Your task to perform on an android device: uninstall "Chime – Mobile Banking" Image 0: 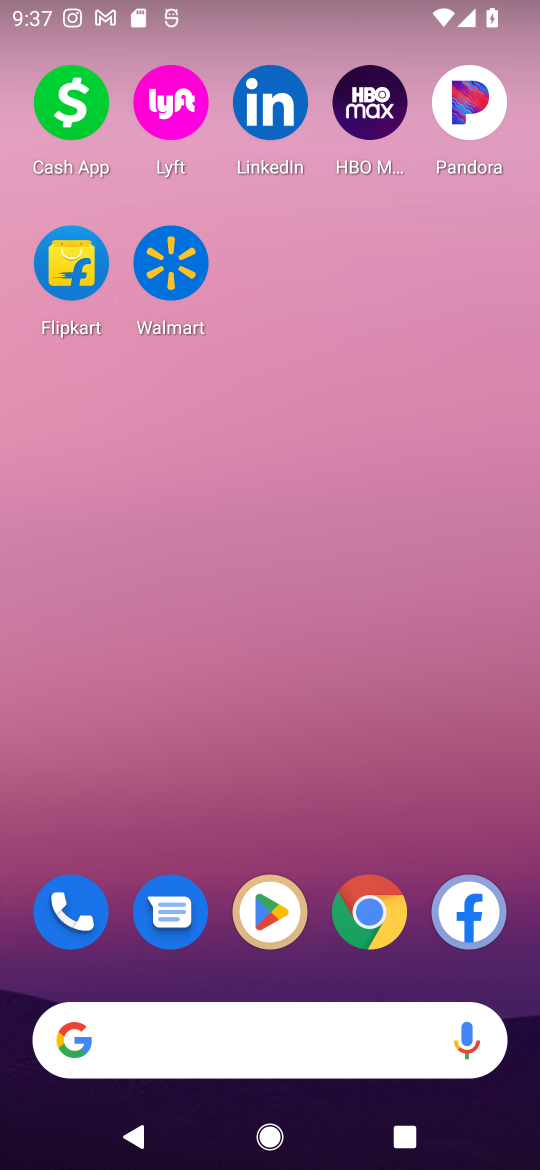
Step 0: click (273, 923)
Your task to perform on an android device: uninstall "Chime – Mobile Banking" Image 1: 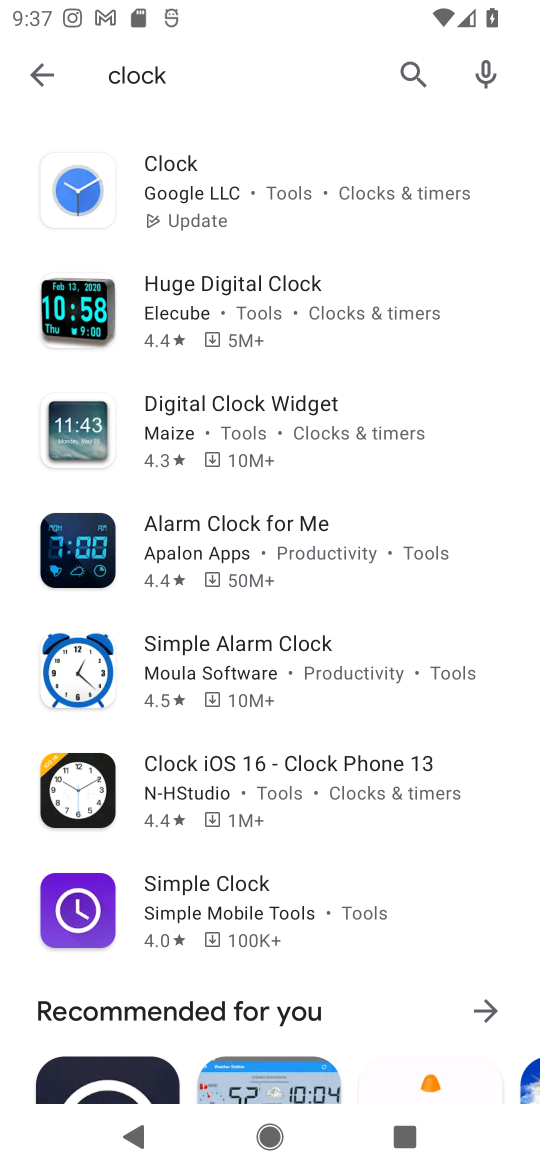
Step 1: click (410, 67)
Your task to perform on an android device: uninstall "Chime – Mobile Banking" Image 2: 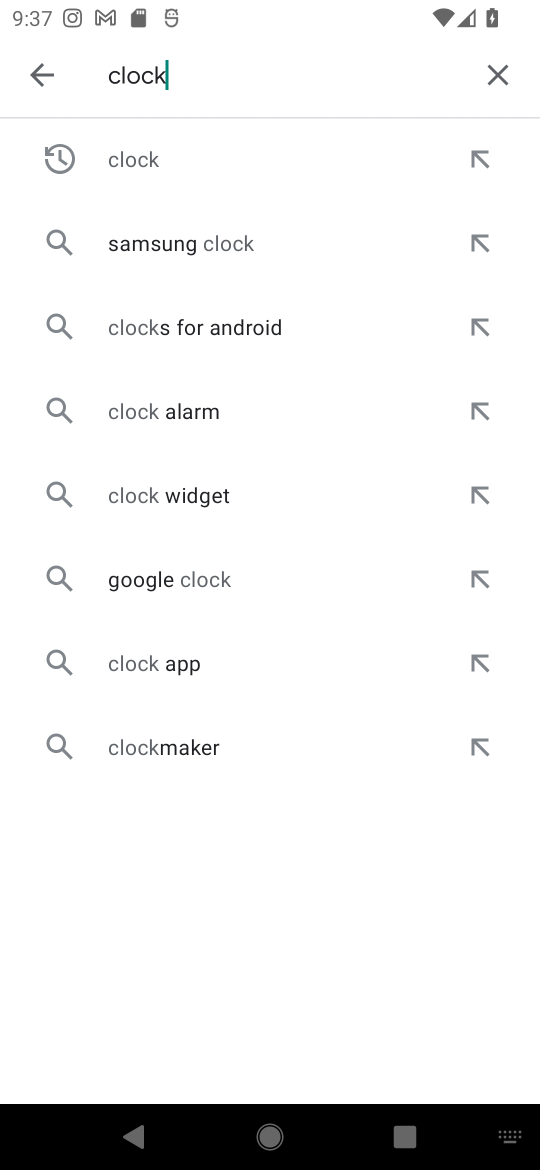
Step 2: click (492, 66)
Your task to perform on an android device: uninstall "Chime – Mobile Banking" Image 3: 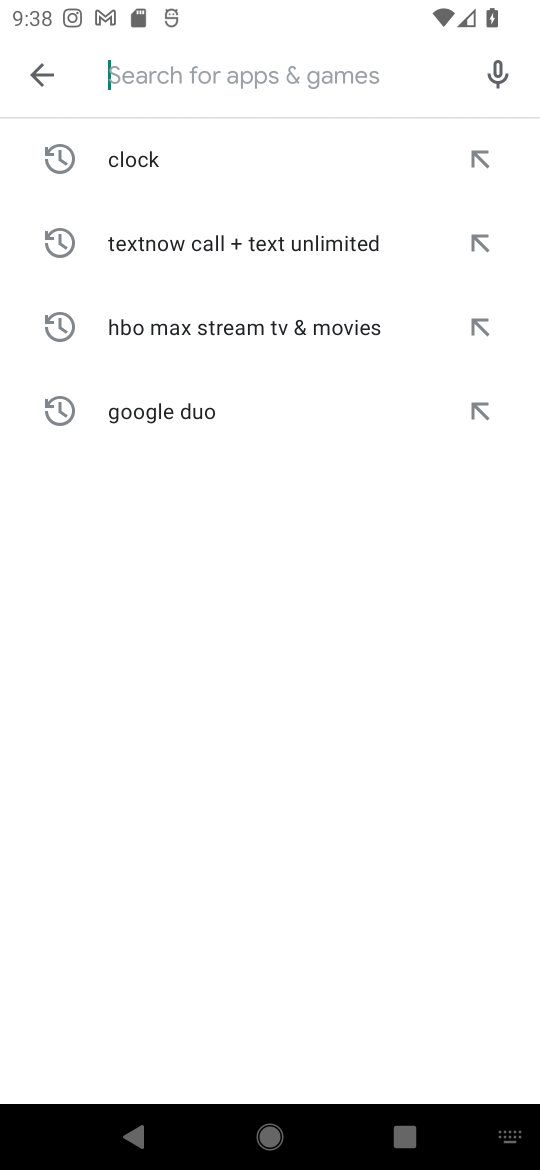
Step 3: type "hime – Mobile Banking"
Your task to perform on an android device: uninstall "Chime – Mobile Banking" Image 4: 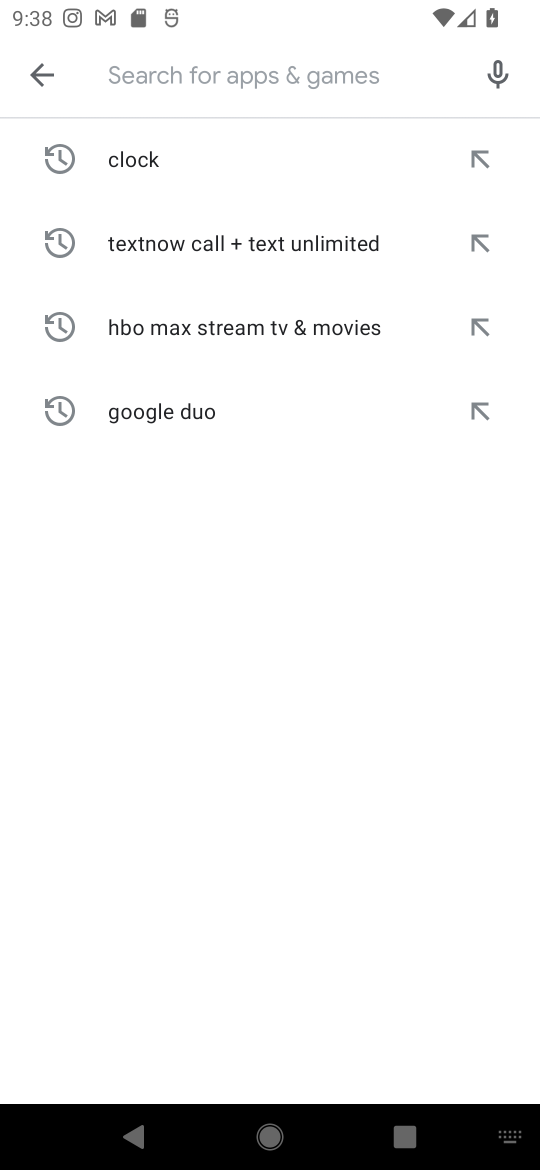
Step 4: type ""
Your task to perform on an android device: uninstall "Chime – Mobile Banking" Image 5: 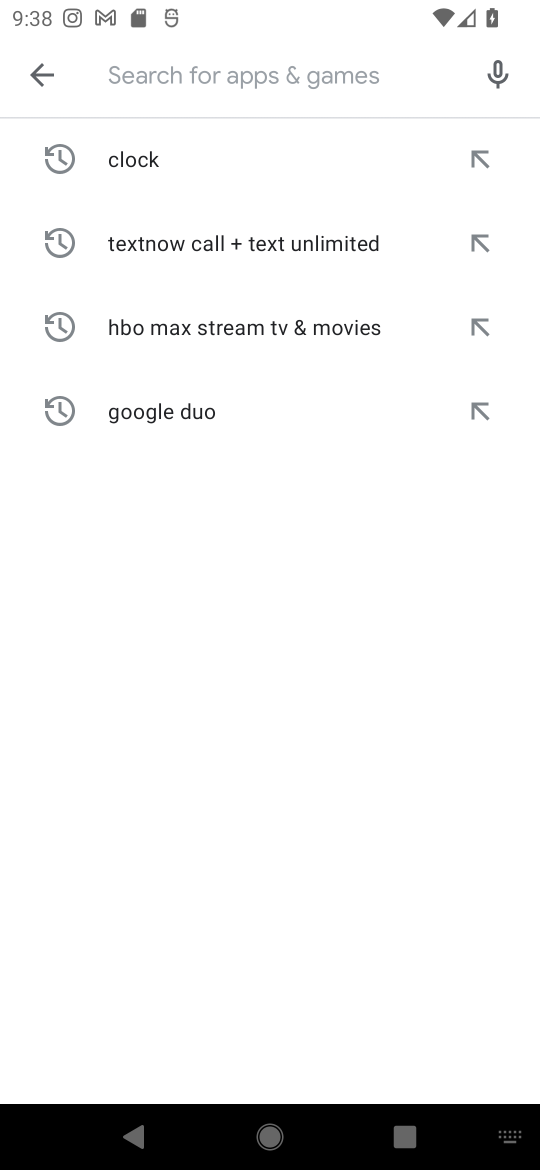
Step 5: type "Chime - Mobile Banking"
Your task to perform on an android device: uninstall "Chime – Mobile Banking" Image 6: 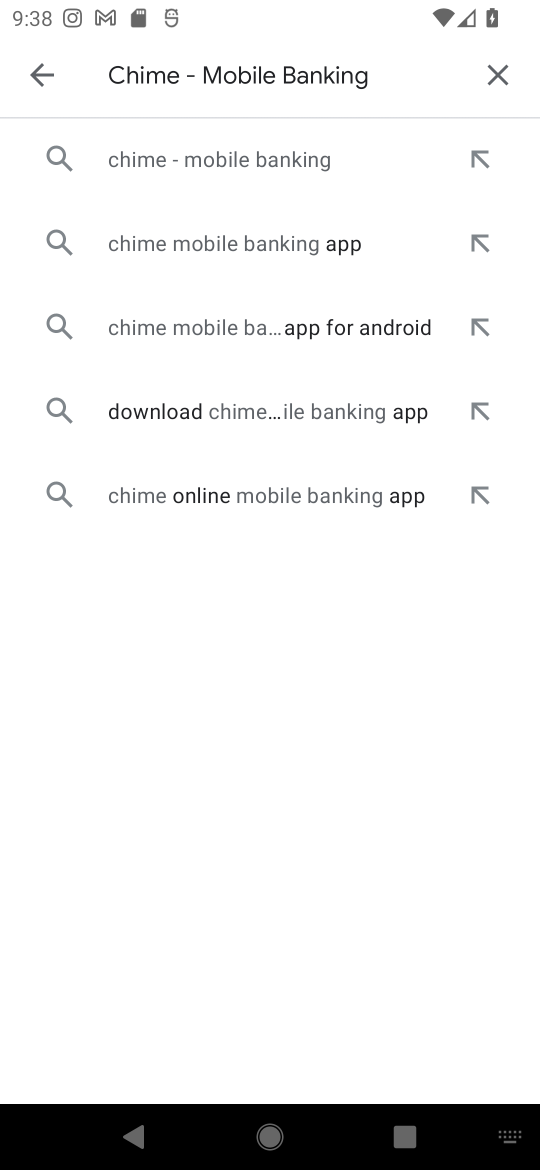
Step 6: click (200, 161)
Your task to perform on an android device: uninstall "Chime – Mobile Banking" Image 7: 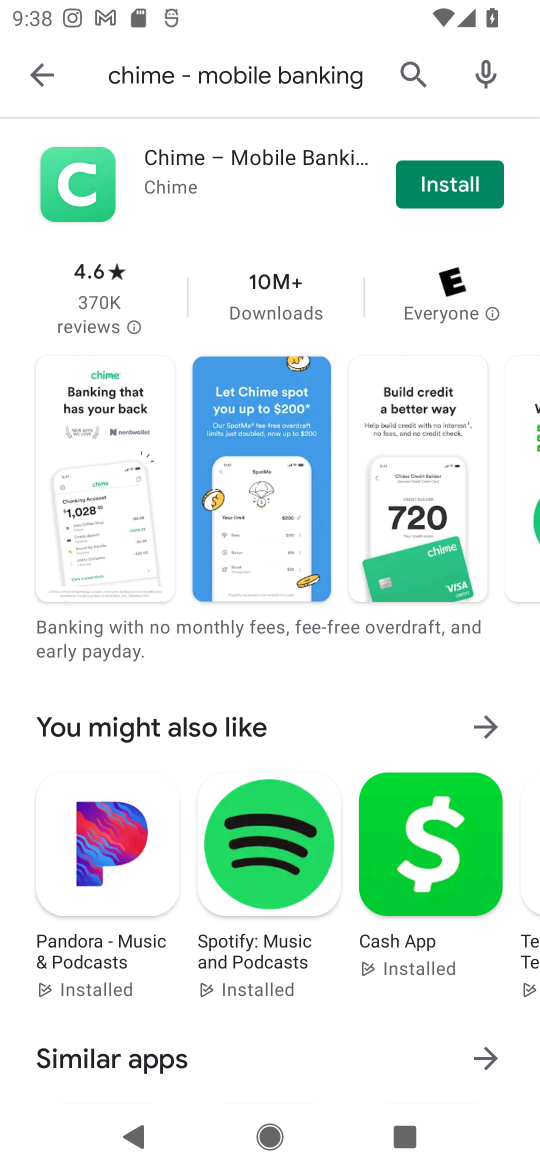
Step 7: task complete